Your task to perform on an android device: Find coffee shops on Maps Image 0: 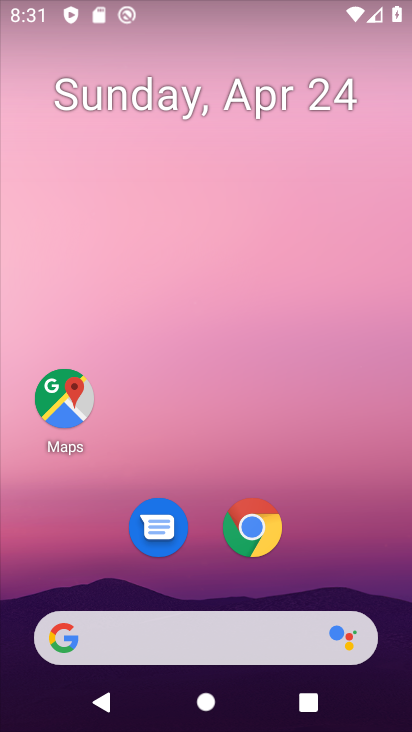
Step 0: click (71, 399)
Your task to perform on an android device: Find coffee shops on Maps Image 1: 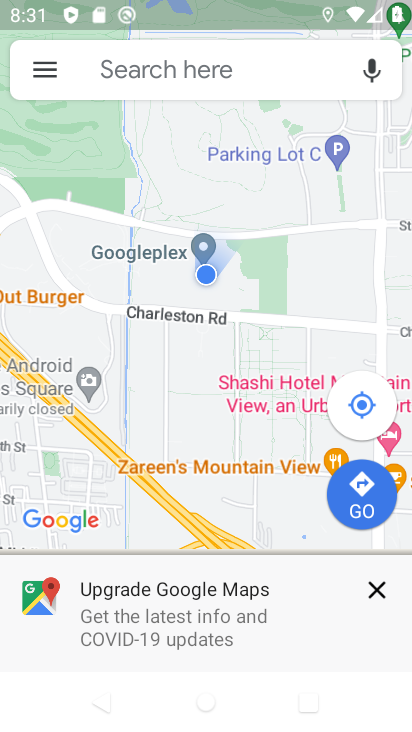
Step 1: click (221, 73)
Your task to perform on an android device: Find coffee shops on Maps Image 2: 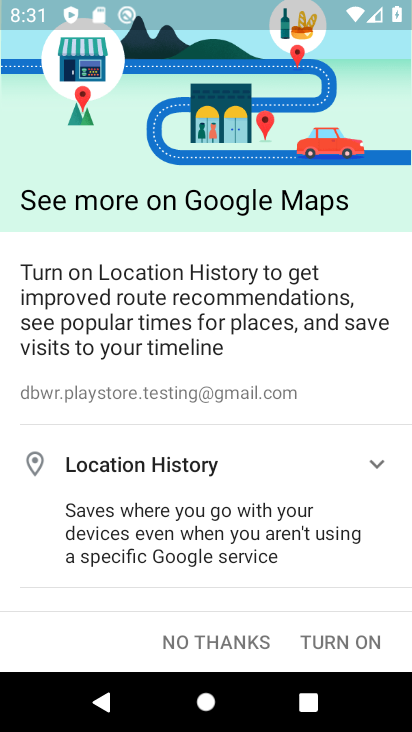
Step 2: click (207, 645)
Your task to perform on an android device: Find coffee shops on Maps Image 3: 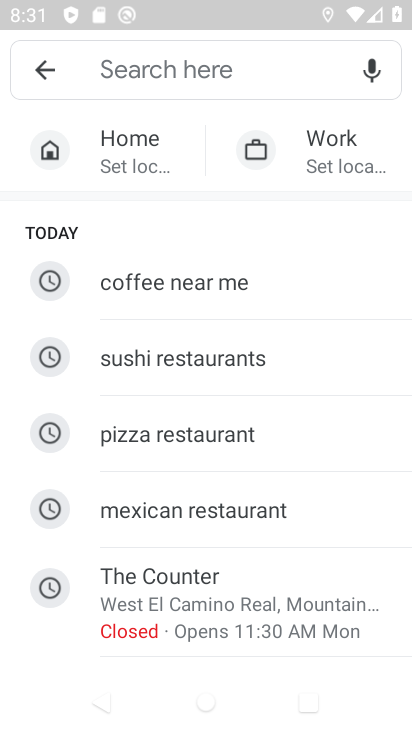
Step 3: click (164, 65)
Your task to perform on an android device: Find coffee shops on Maps Image 4: 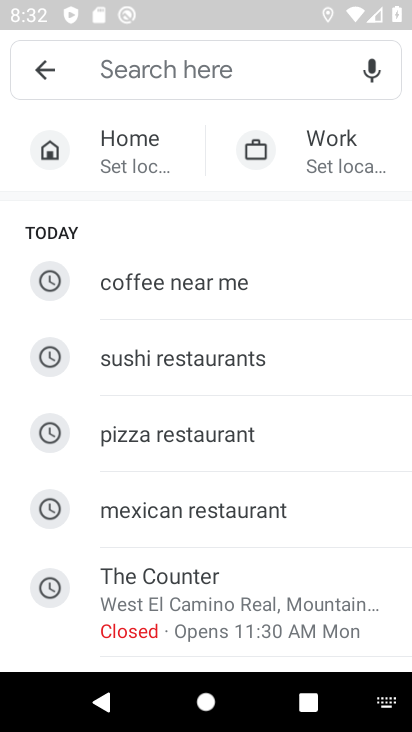
Step 4: type "coffee shops"
Your task to perform on an android device: Find coffee shops on Maps Image 5: 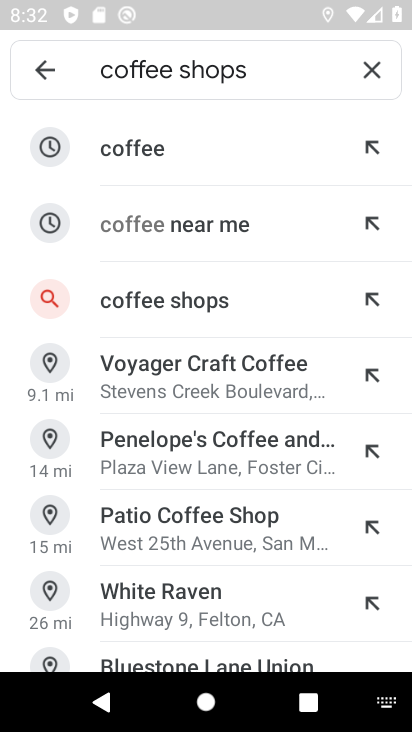
Step 5: click (211, 307)
Your task to perform on an android device: Find coffee shops on Maps Image 6: 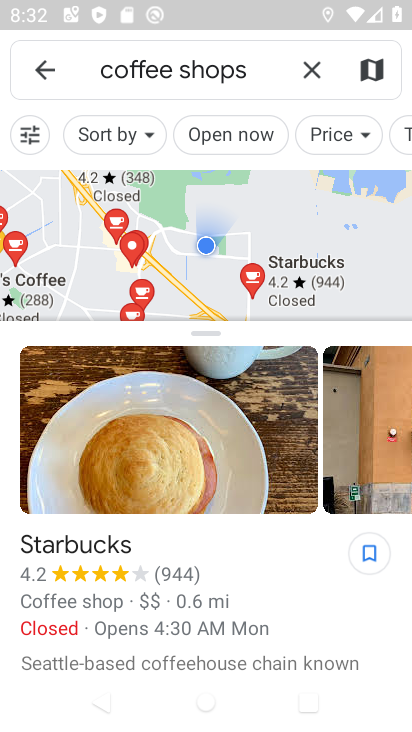
Step 6: task complete